Your task to perform on an android device: uninstall "Pinterest" Image 0: 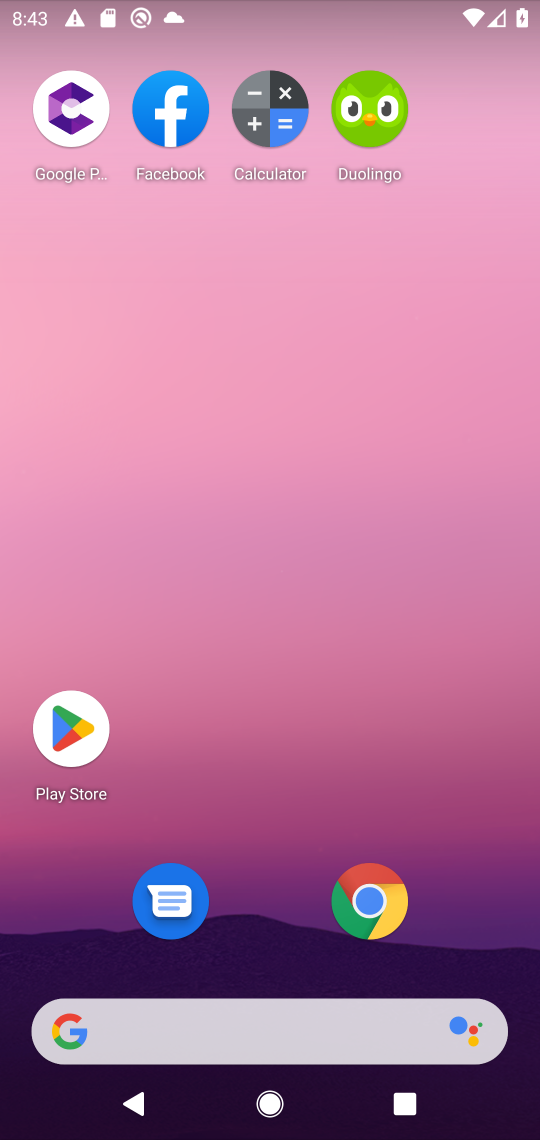
Step 0: drag from (515, 956) to (436, 131)
Your task to perform on an android device: uninstall "Pinterest" Image 1: 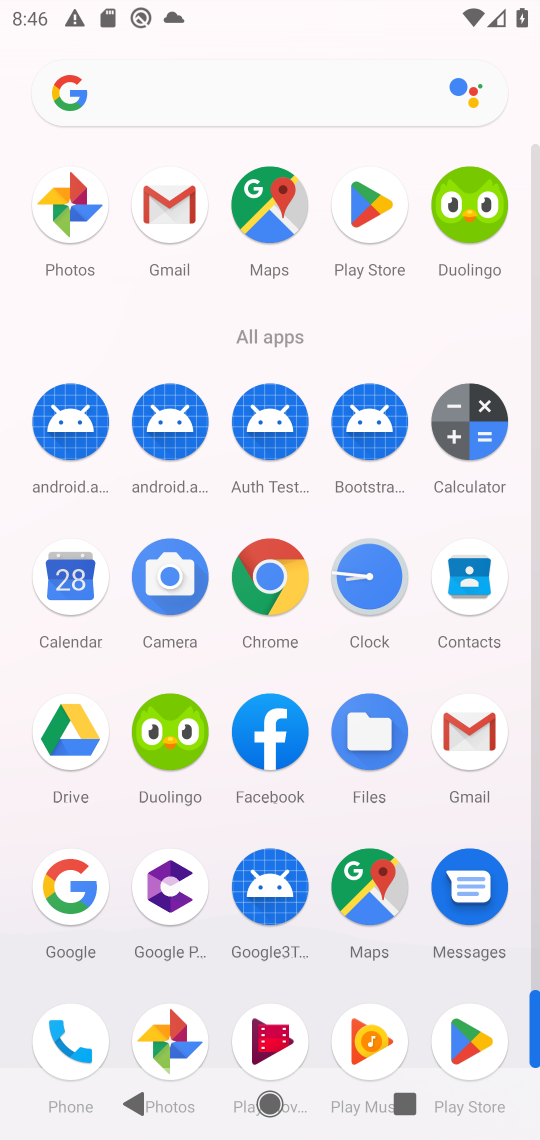
Step 1: task complete